Your task to perform on an android device: Search for Italian restaurants on Maps Image 0: 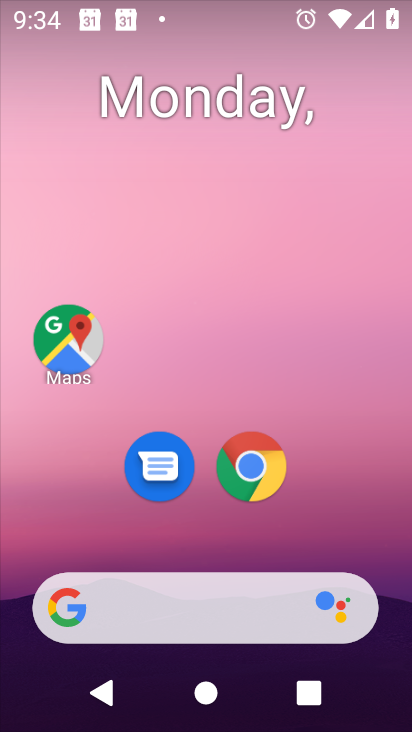
Step 0: drag from (375, 604) to (227, 40)
Your task to perform on an android device: Search for Italian restaurants on Maps Image 1: 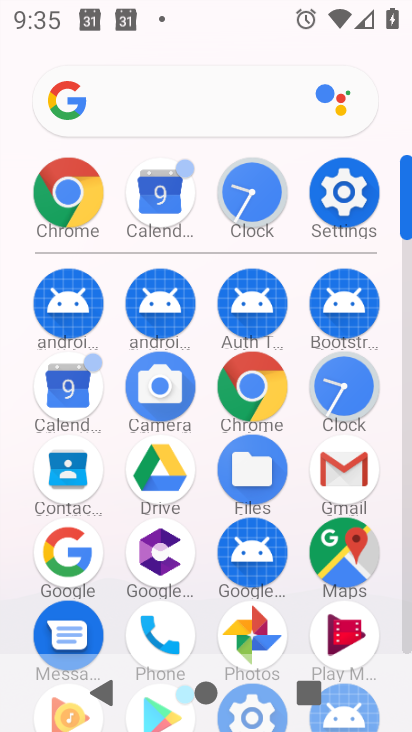
Step 1: drag from (294, 544) to (293, 148)
Your task to perform on an android device: Search for Italian restaurants on Maps Image 2: 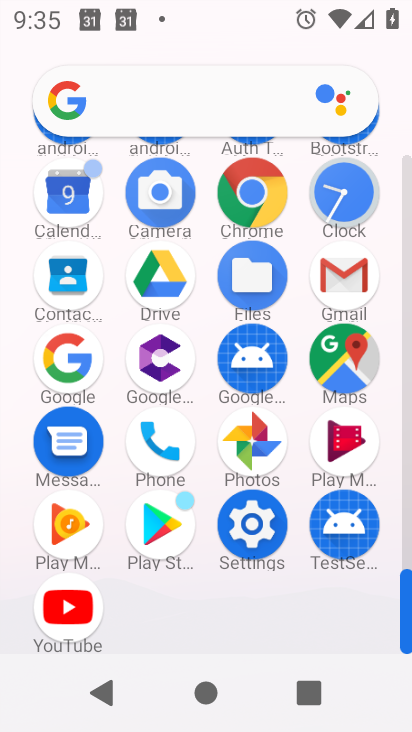
Step 2: click (349, 555)
Your task to perform on an android device: Search for Italian restaurants on Maps Image 3: 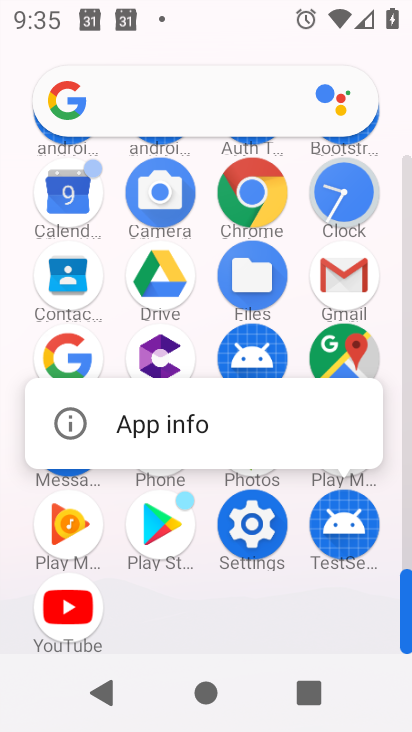
Step 3: click (350, 343)
Your task to perform on an android device: Search for Italian restaurants on Maps Image 4: 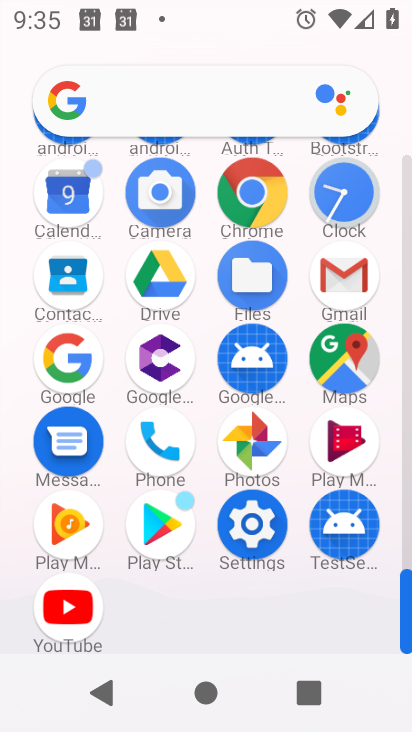
Step 4: click (350, 362)
Your task to perform on an android device: Search for Italian restaurants on Maps Image 5: 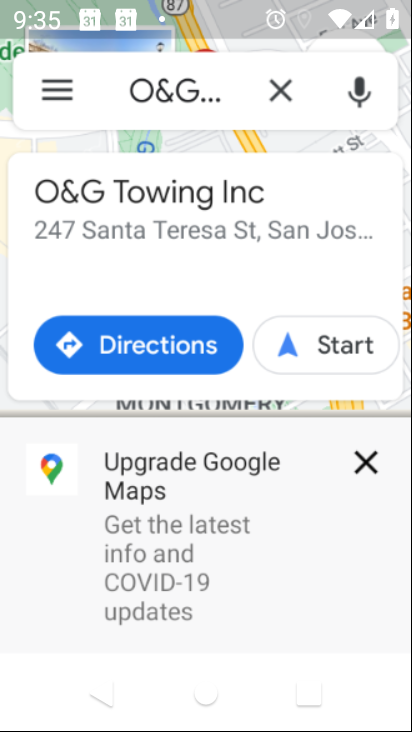
Step 5: click (350, 361)
Your task to perform on an android device: Search for Italian restaurants on Maps Image 6: 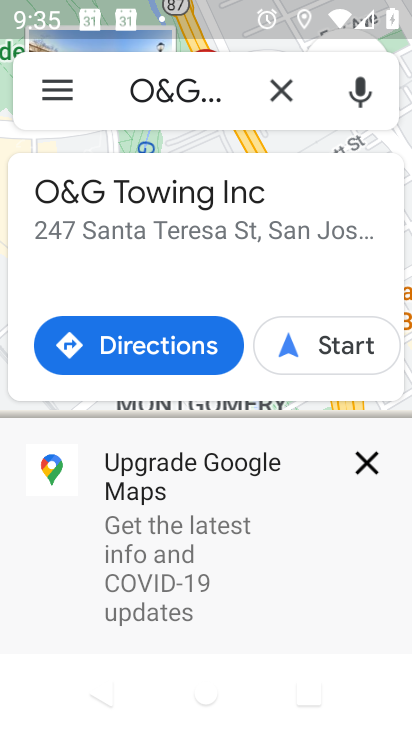
Step 6: press back button
Your task to perform on an android device: Search for Italian restaurants on Maps Image 7: 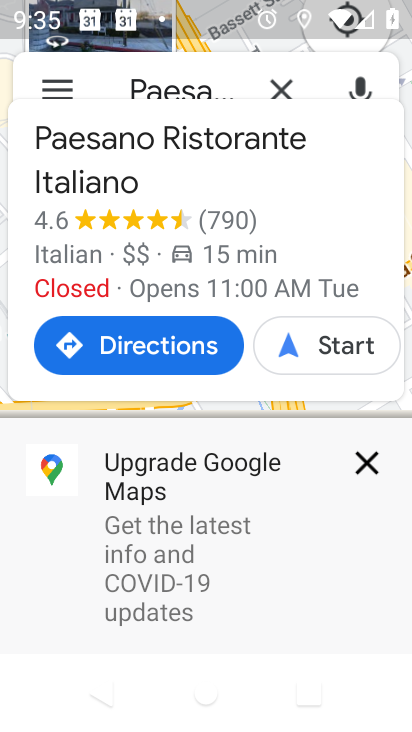
Step 7: click (373, 464)
Your task to perform on an android device: Search for Italian restaurants on Maps Image 8: 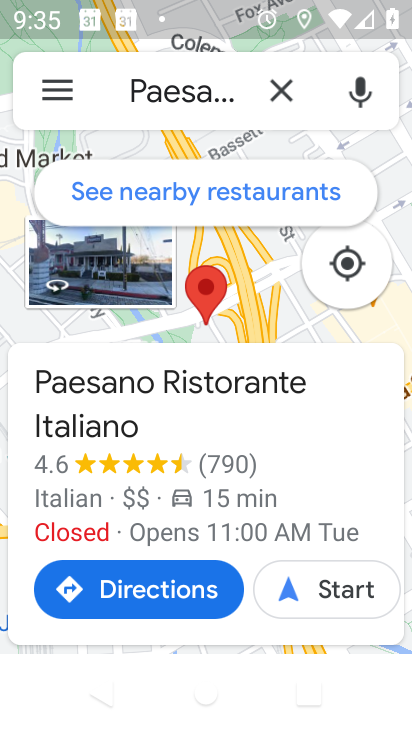
Step 8: click (138, 85)
Your task to perform on an android device: Search for Italian restaurants on Maps Image 9: 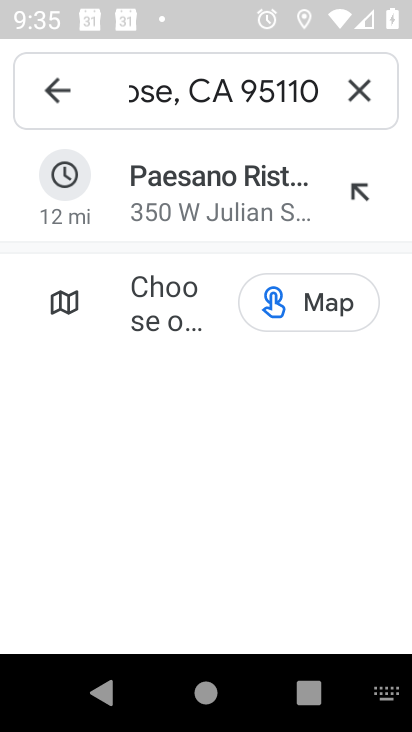
Step 9: click (62, 96)
Your task to perform on an android device: Search for Italian restaurants on Maps Image 10: 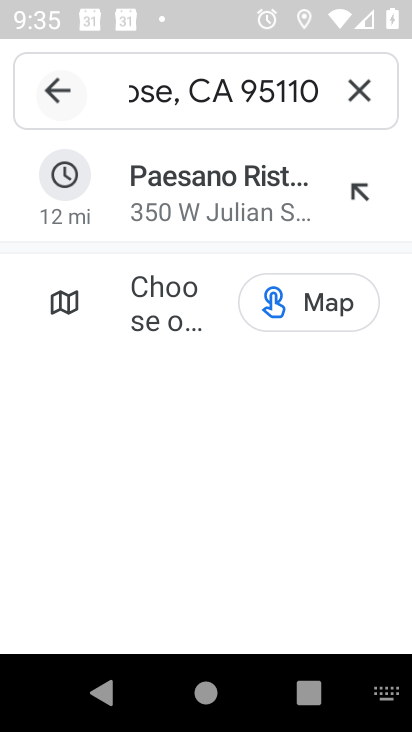
Step 10: click (62, 96)
Your task to perform on an android device: Search for Italian restaurants on Maps Image 11: 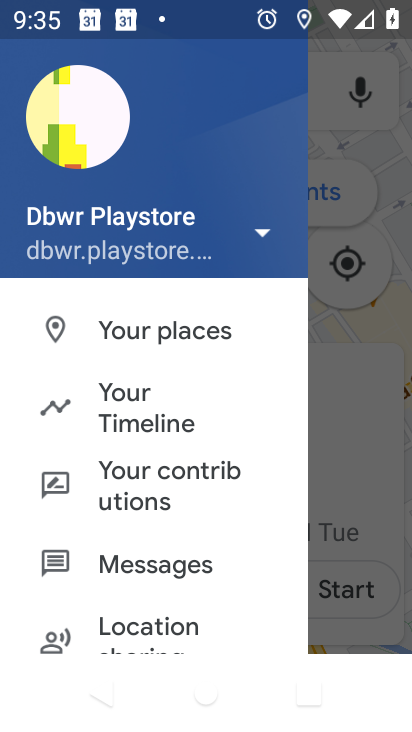
Step 11: click (344, 460)
Your task to perform on an android device: Search for Italian restaurants on Maps Image 12: 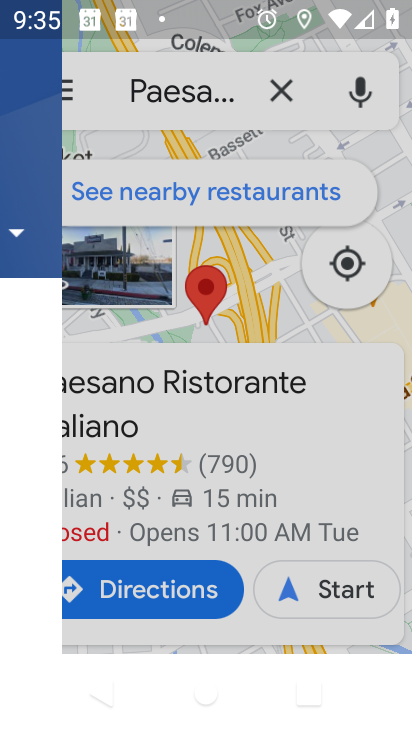
Step 12: click (324, 431)
Your task to perform on an android device: Search for Italian restaurants on Maps Image 13: 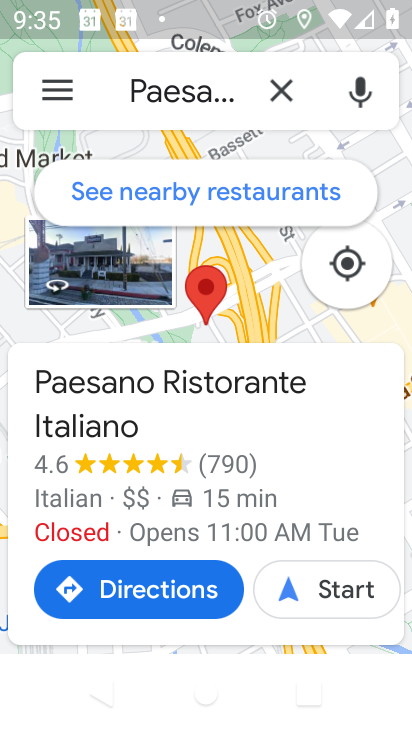
Step 13: click (152, 78)
Your task to perform on an android device: Search for Italian restaurants on Maps Image 14: 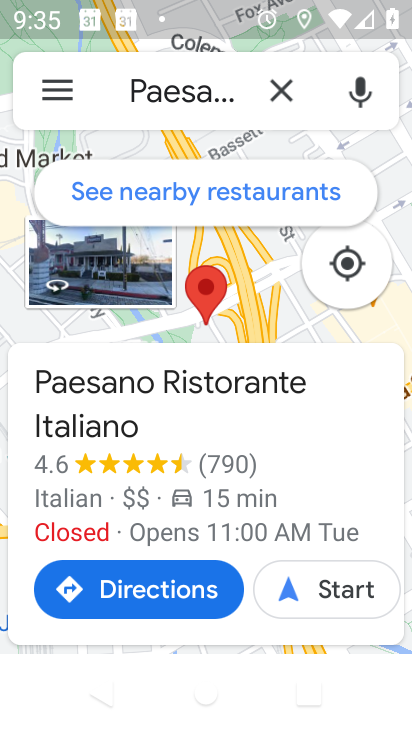
Step 14: click (150, 88)
Your task to perform on an android device: Search for Italian restaurants on Maps Image 15: 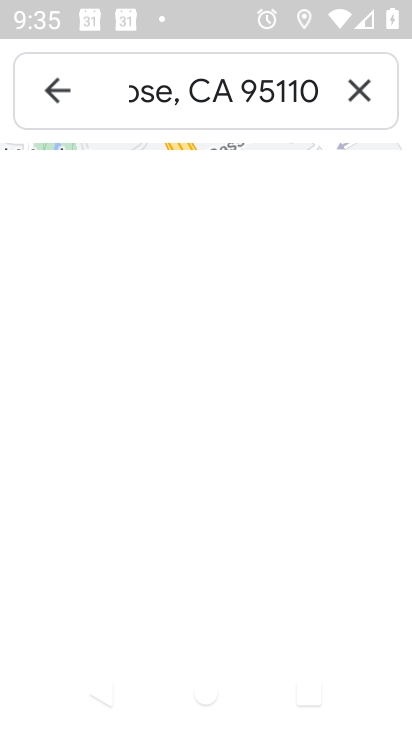
Step 15: click (150, 88)
Your task to perform on an android device: Search for Italian restaurants on Maps Image 16: 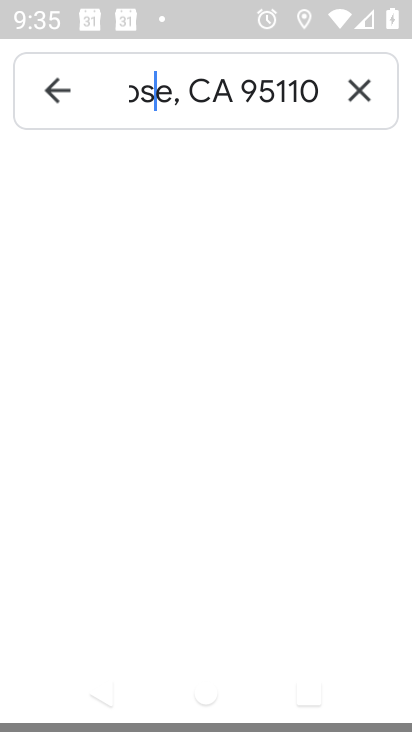
Step 16: click (146, 91)
Your task to perform on an android device: Search for Italian restaurants on Maps Image 17: 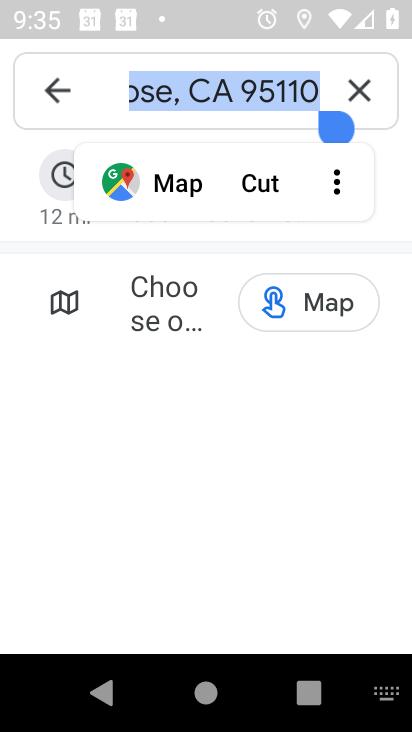
Step 17: click (342, 97)
Your task to perform on an android device: Search for Italian restaurants on Maps Image 18: 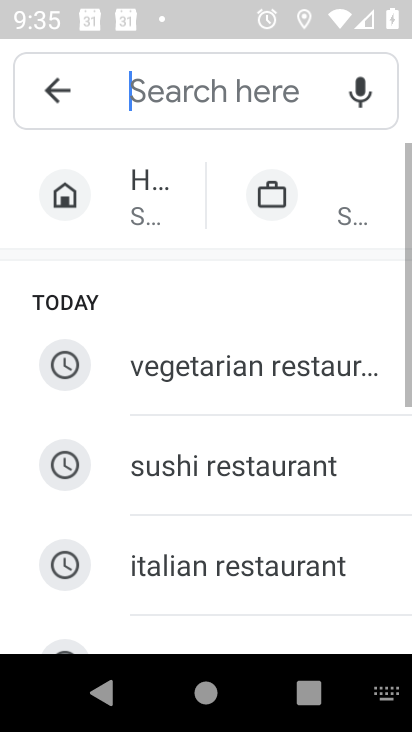
Step 18: click (354, 90)
Your task to perform on an android device: Search for Italian restaurants on Maps Image 19: 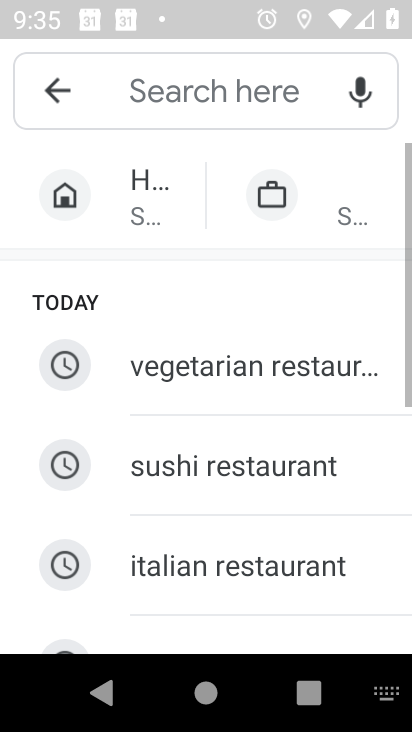
Step 19: click (358, 88)
Your task to perform on an android device: Search for Italian restaurants on Maps Image 20: 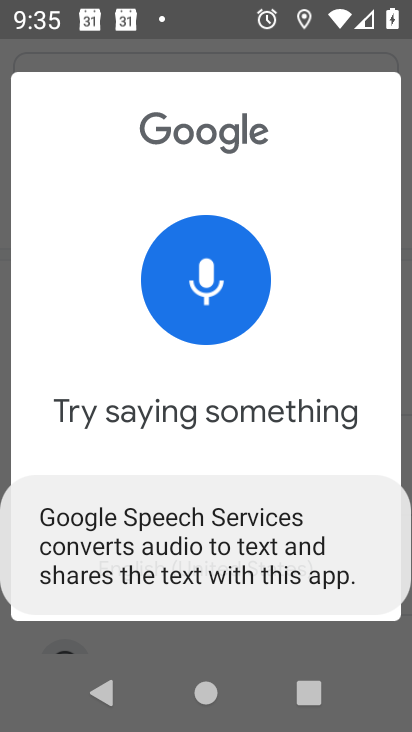
Step 20: click (180, 561)
Your task to perform on an android device: Search for Italian restaurants on Maps Image 21: 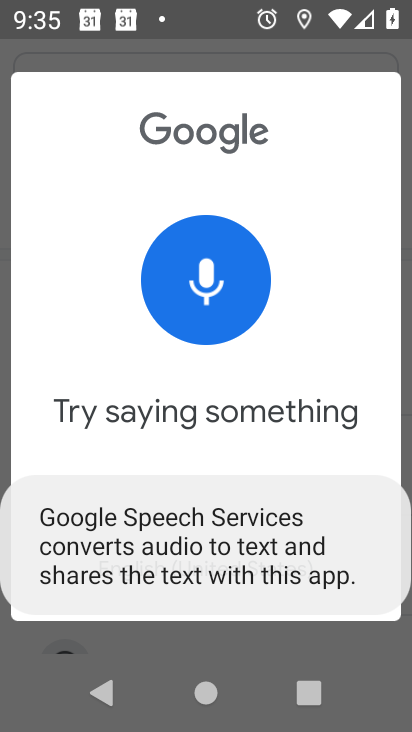
Step 21: click (352, 54)
Your task to perform on an android device: Search for Italian restaurants on Maps Image 22: 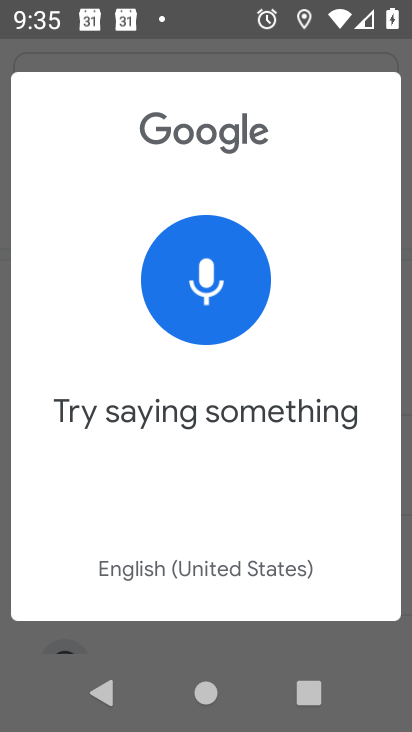
Step 22: click (221, 29)
Your task to perform on an android device: Search for Italian restaurants on Maps Image 23: 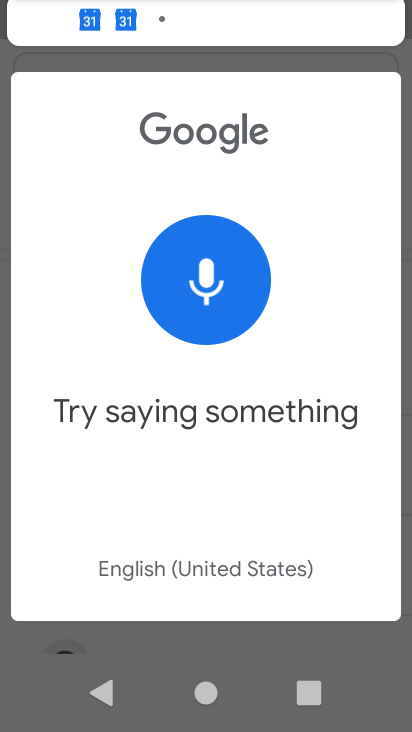
Step 23: click (233, 48)
Your task to perform on an android device: Search for Italian restaurants on Maps Image 24: 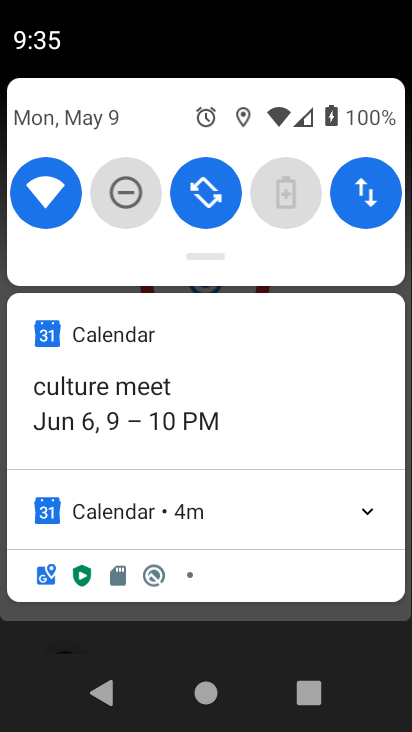
Step 24: click (330, 640)
Your task to perform on an android device: Search for Italian restaurants on Maps Image 25: 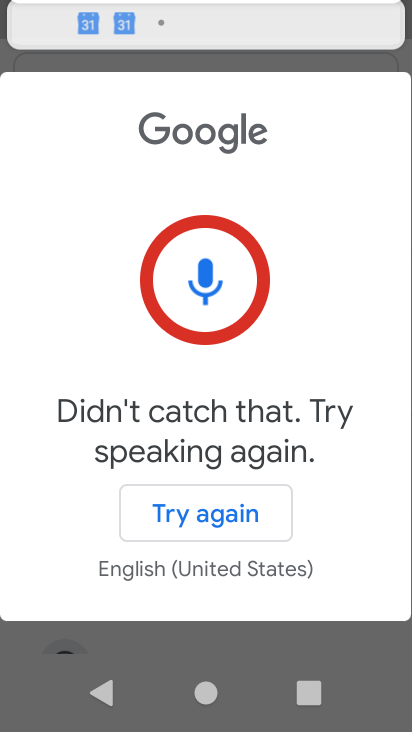
Step 25: click (344, 640)
Your task to perform on an android device: Search for Italian restaurants on Maps Image 26: 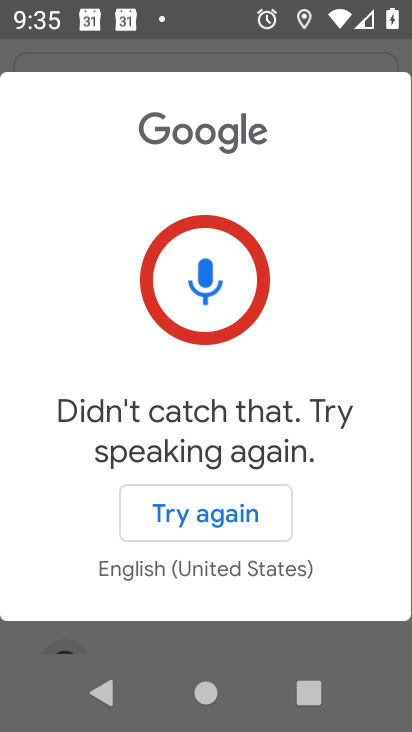
Step 26: click (361, 648)
Your task to perform on an android device: Search for Italian restaurants on Maps Image 27: 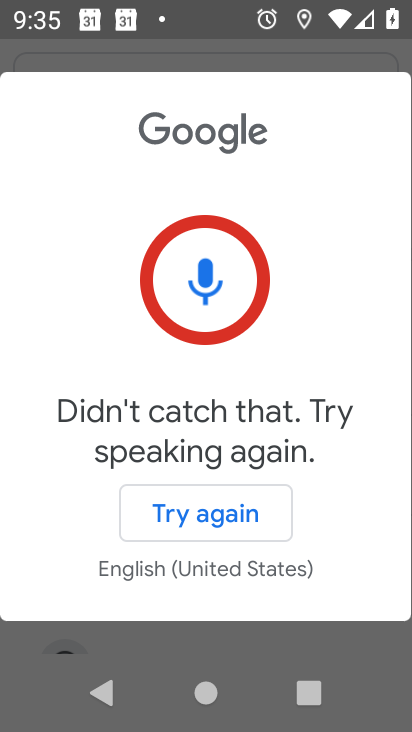
Step 27: click (366, 650)
Your task to perform on an android device: Search for Italian restaurants on Maps Image 28: 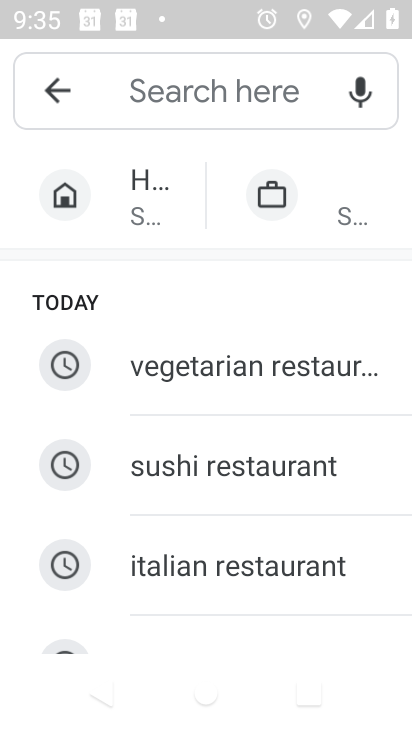
Step 28: click (365, 651)
Your task to perform on an android device: Search for Italian restaurants on Maps Image 29: 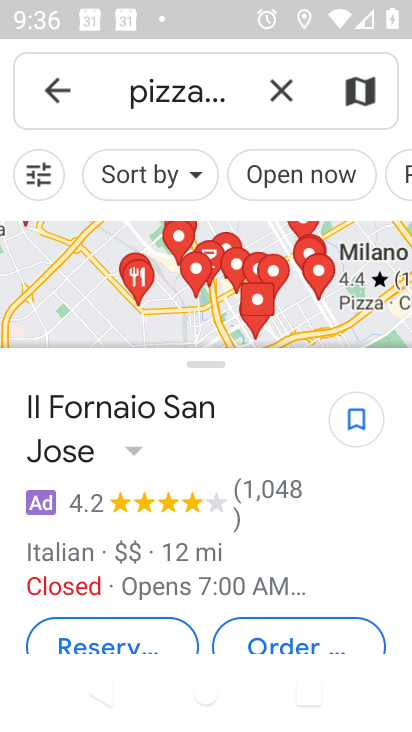
Step 29: click (274, 88)
Your task to perform on an android device: Search for Italian restaurants on Maps Image 30: 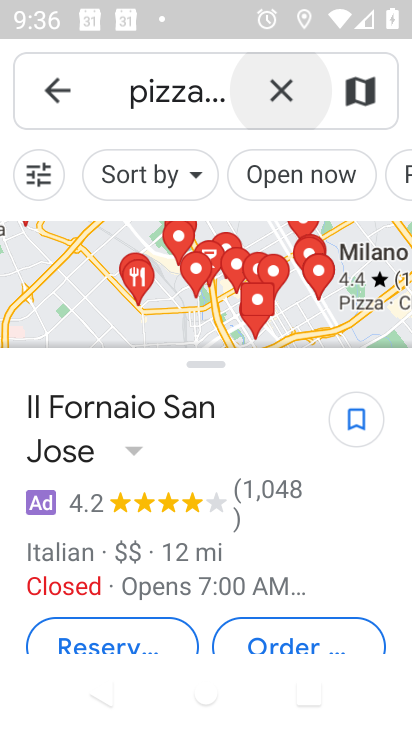
Step 30: click (275, 88)
Your task to perform on an android device: Search for Italian restaurants on Maps Image 31: 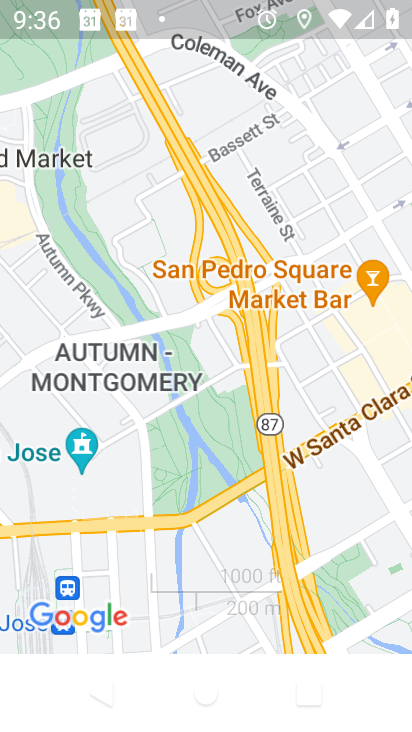
Step 31: drag from (256, 454) to (271, 565)
Your task to perform on an android device: Search for Italian restaurants on Maps Image 32: 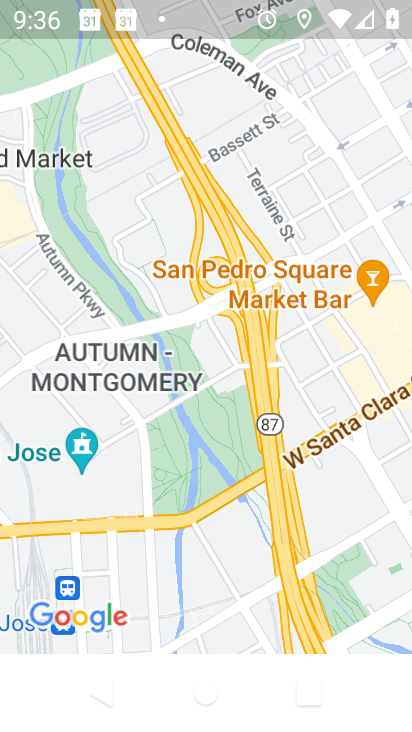
Step 32: drag from (239, 334) to (279, 468)
Your task to perform on an android device: Search for Italian restaurants on Maps Image 33: 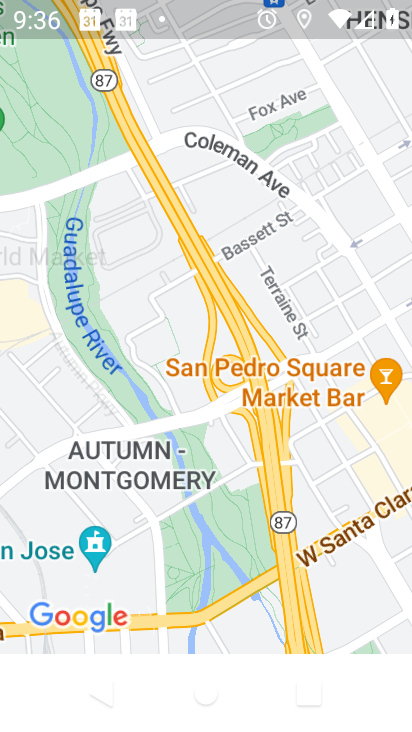
Step 33: drag from (254, 284) to (261, 508)
Your task to perform on an android device: Search for Italian restaurants on Maps Image 34: 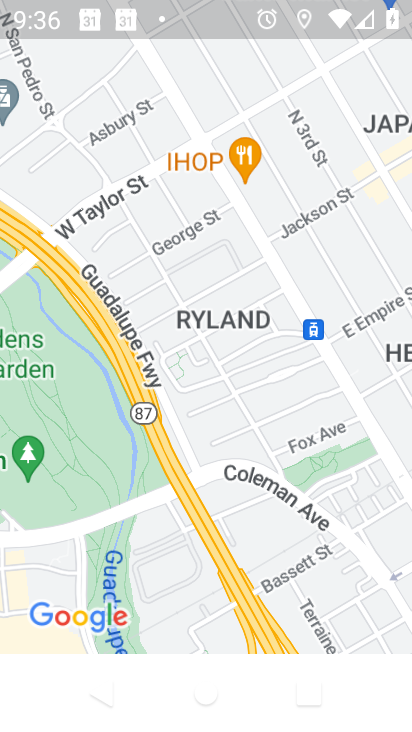
Step 34: press back button
Your task to perform on an android device: Search for Italian restaurants on Maps Image 35: 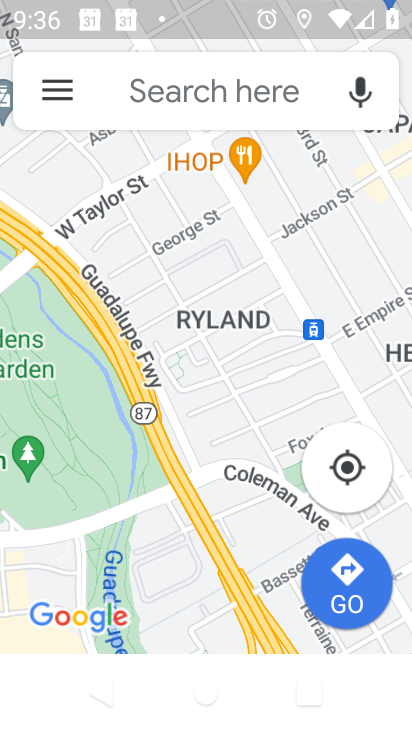
Step 35: click (142, 84)
Your task to perform on an android device: Search for Italian restaurants on Maps Image 36: 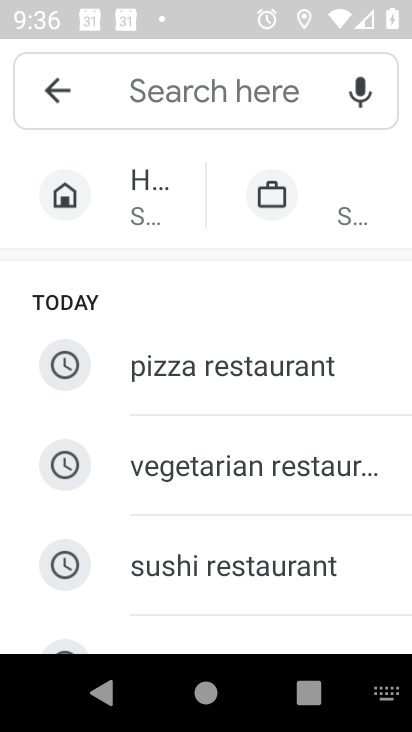
Step 36: type "italian restaurants"
Your task to perform on an android device: Search for Italian restaurants on Maps Image 37: 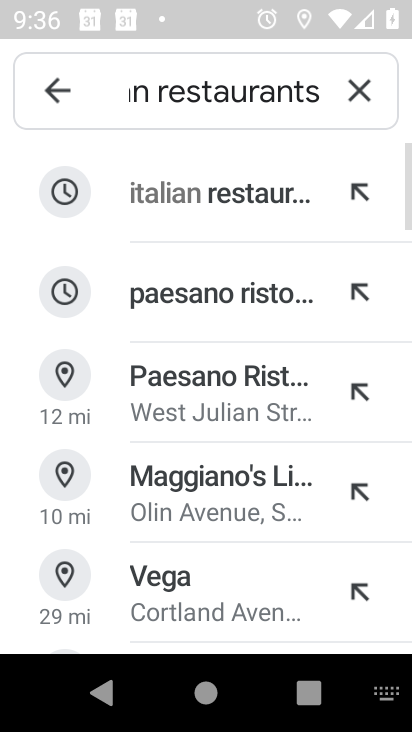
Step 37: click (233, 204)
Your task to perform on an android device: Search for Italian restaurants on Maps Image 38: 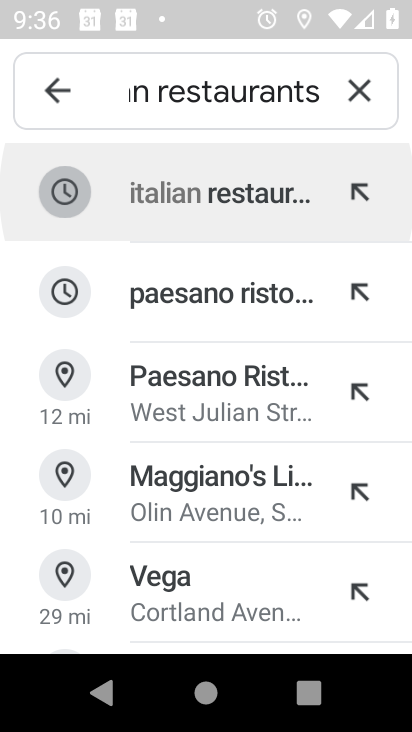
Step 38: click (233, 204)
Your task to perform on an android device: Search for Italian restaurants on Maps Image 39: 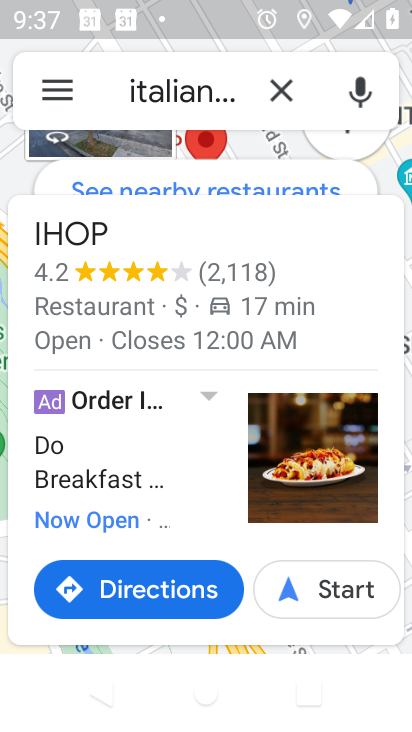
Step 39: press home button
Your task to perform on an android device: Search for Italian restaurants on Maps Image 40: 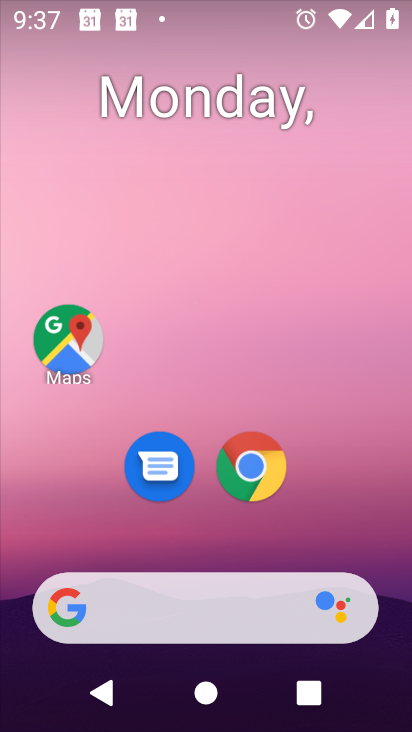
Step 40: drag from (300, 549) to (400, 506)
Your task to perform on an android device: Search for Italian restaurants on Maps Image 41: 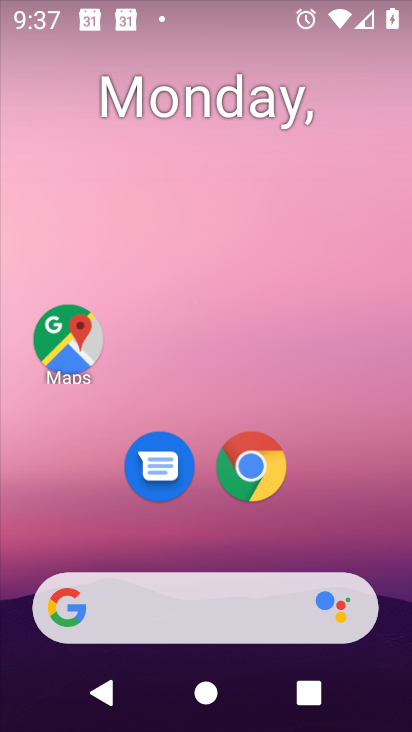
Step 41: drag from (321, 554) to (139, 45)
Your task to perform on an android device: Search for Italian restaurants on Maps Image 42: 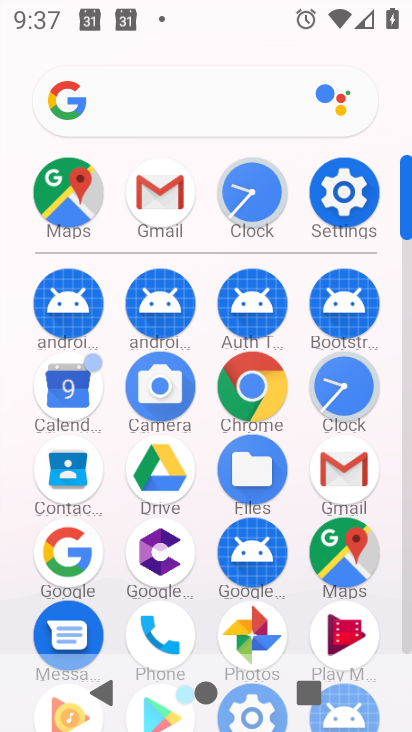
Step 42: click (347, 552)
Your task to perform on an android device: Search for Italian restaurants on Maps Image 43: 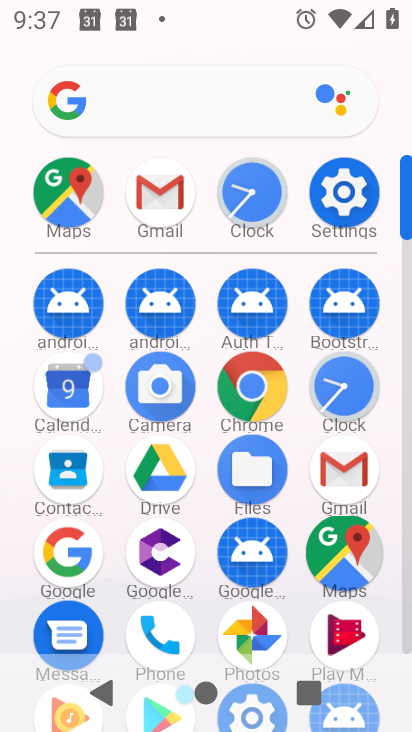
Step 43: click (348, 550)
Your task to perform on an android device: Search for Italian restaurants on Maps Image 44: 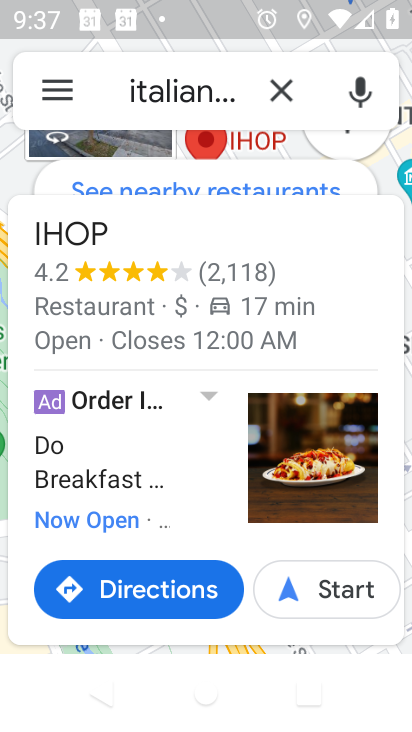
Step 44: click (288, 83)
Your task to perform on an android device: Search for Italian restaurants on Maps Image 45: 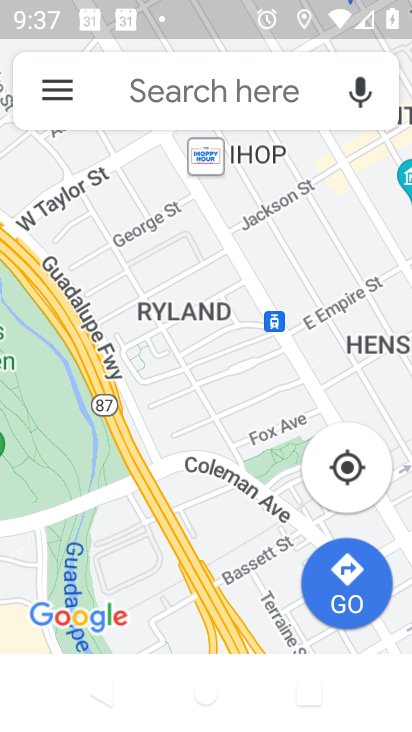
Step 45: click (139, 93)
Your task to perform on an android device: Search for Italian restaurants on Maps Image 46: 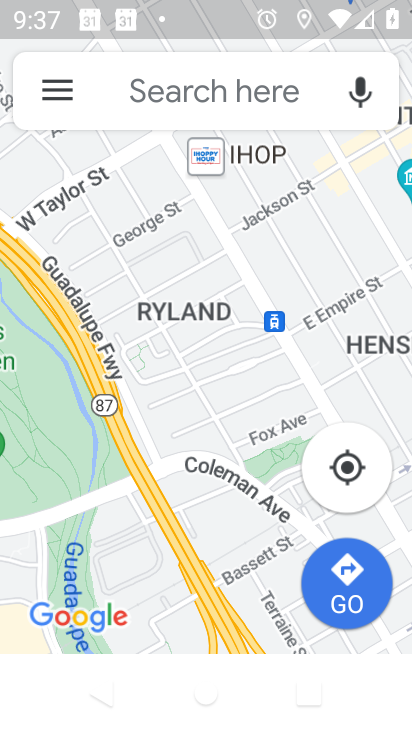
Step 46: click (139, 93)
Your task to perform on an android device: Search for Italian restaurants on Maps Image 47: 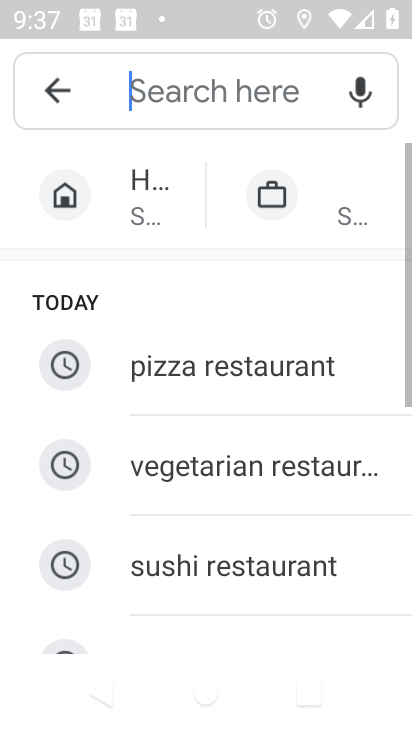
Step 47: click (139, 93)
Your task to perform on an android device: Search for Italian restaurants on Maps Image 48: 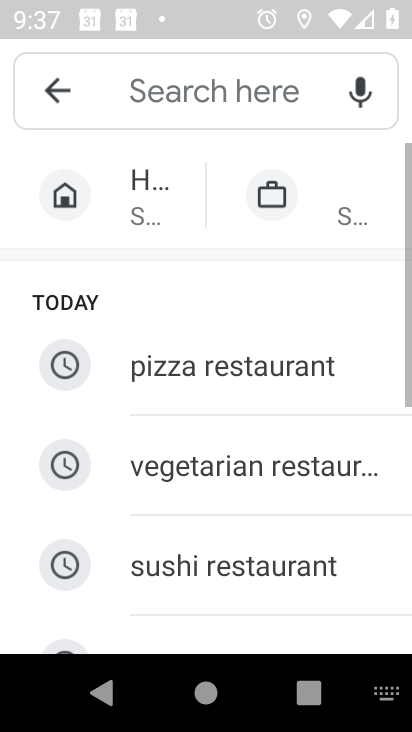
Step 48: click (139, 92)
Your task to perform on an android device: Search for Italian restaurants on Maps Image 49: 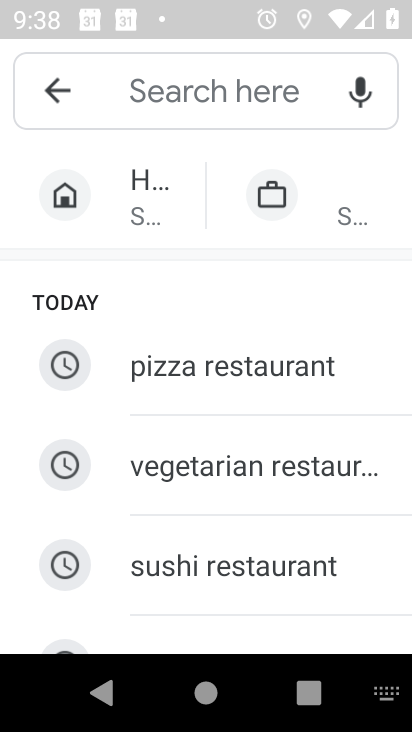
Step 49: type "italian restaurants"
Your task to perform on an android device: Search for Italian restaurants on Maps Image 50: 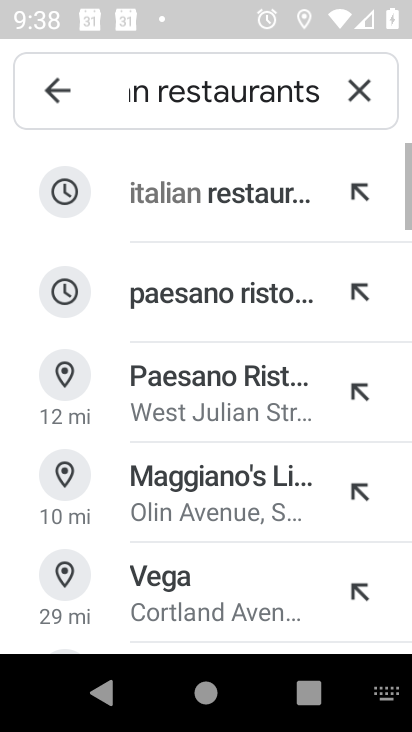
Step 50: click (218, 190)
Your task to perform on an android device: Search for Italian restaurants on Maps Image 51: 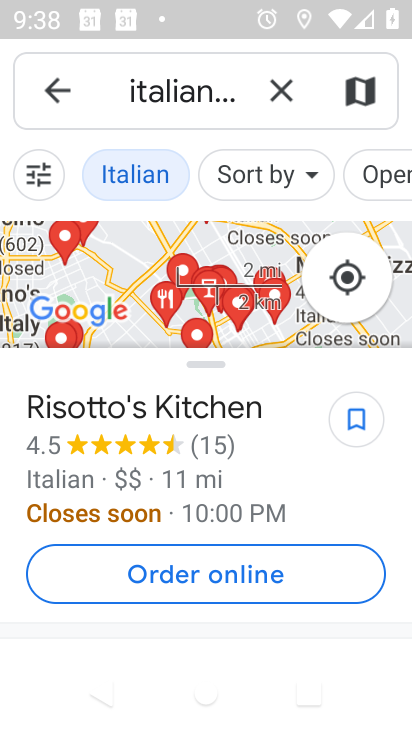
Step 51: task complete